Your task to perform on an android device: Open location settings Image 0: 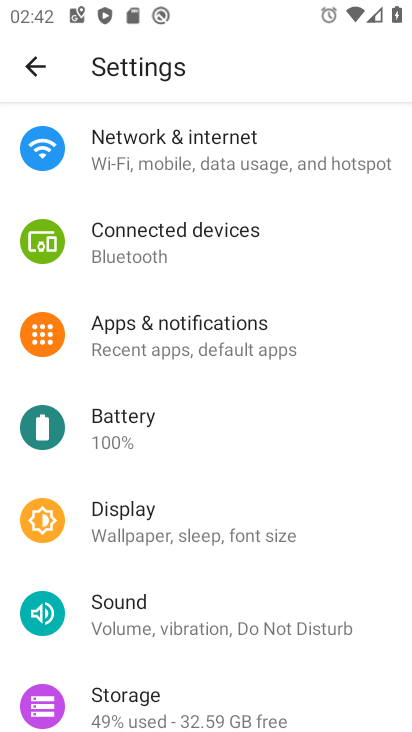
Step 0: drag from (279, 534) to (262, 248)
Your task to perform on an android device: Open location settings Image 1: 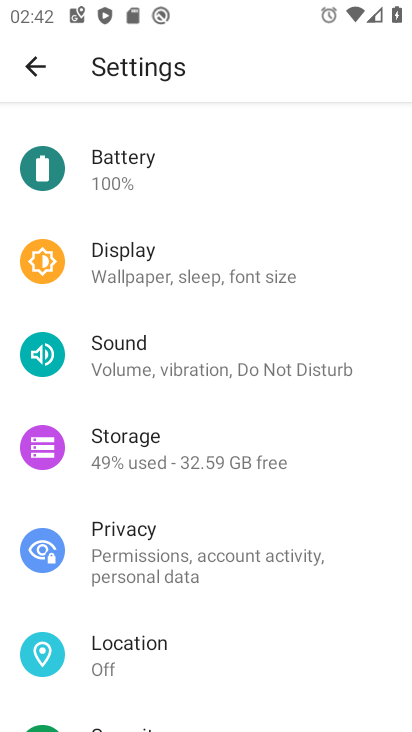
Step 1: click (225, 650)
Your task to perform on an android device: Open location settings Image 2: 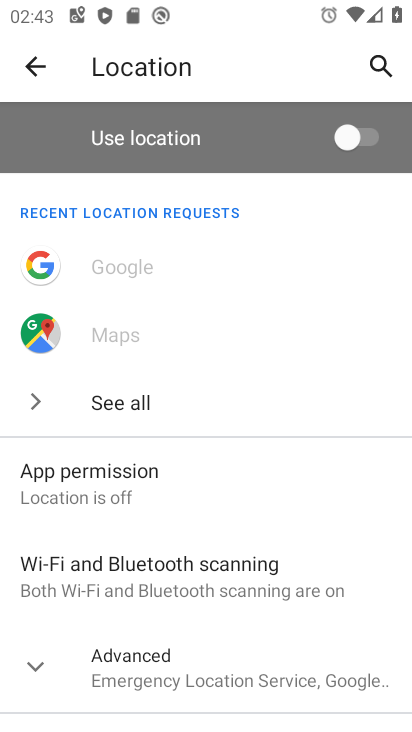
Step 2: task complete